Your task to perform on an android device: Open Google Chrome and open the bookmarks view Image 0: 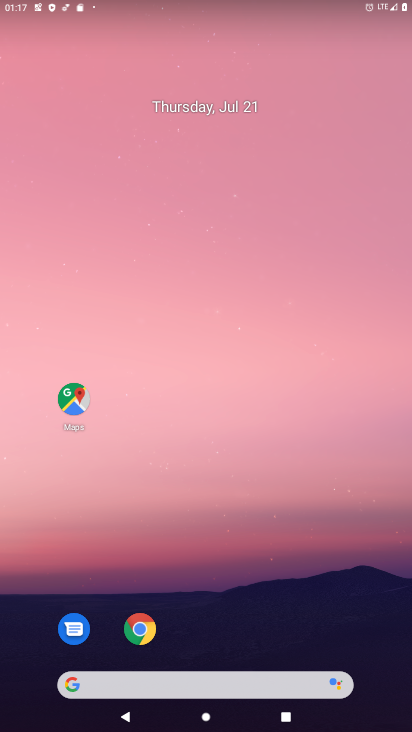
Step 0: click (211, 24)
Your task to perform on an android device: Open Google Chrome and open the bookmarks view Image 1: 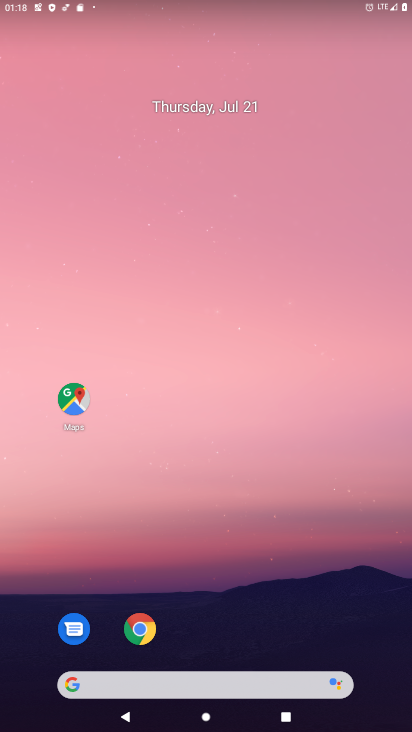
Step 1: drag from (271, 651) to (250, 24)
Your task to perform on an android device: Open Google Chrome and open the bookmarks view Image 2: 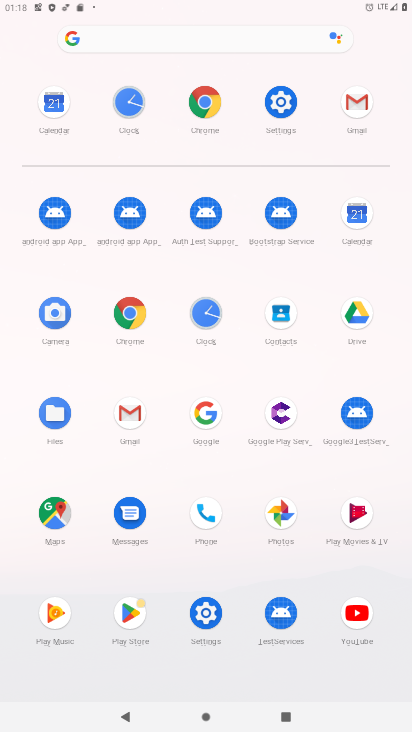
Step 2: click (136, 313)
Your task to perform on an android device: Open Google Chrome and open the bookmarks view Image 3: 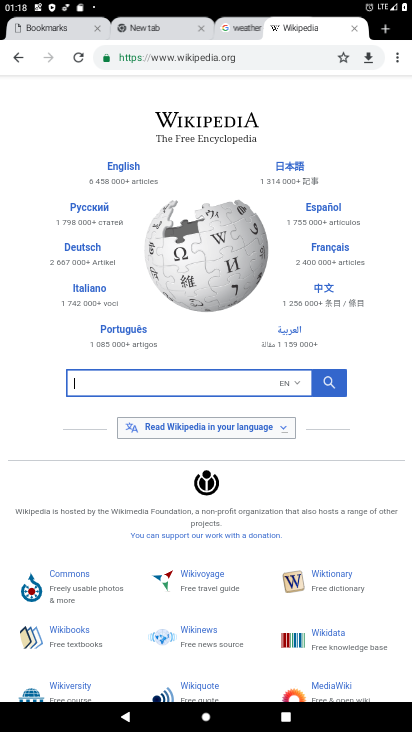
Step 3: task complete